Your task to perform on an android device: open a new tab in the chrome app Image 0: 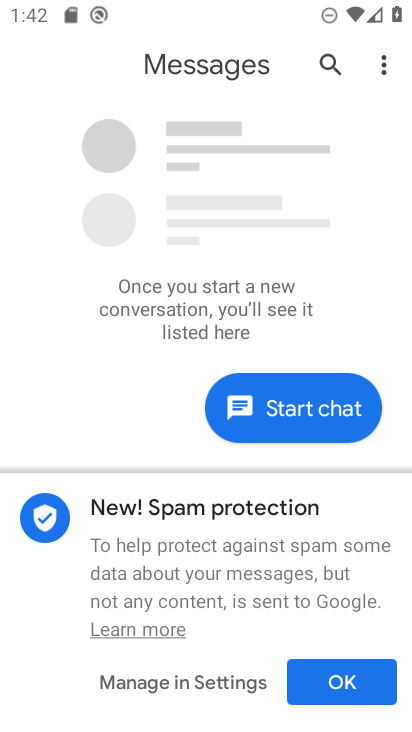
Step 0: press home button
Your task to perform on an android device: open a new tab in the chrome app Image 1: 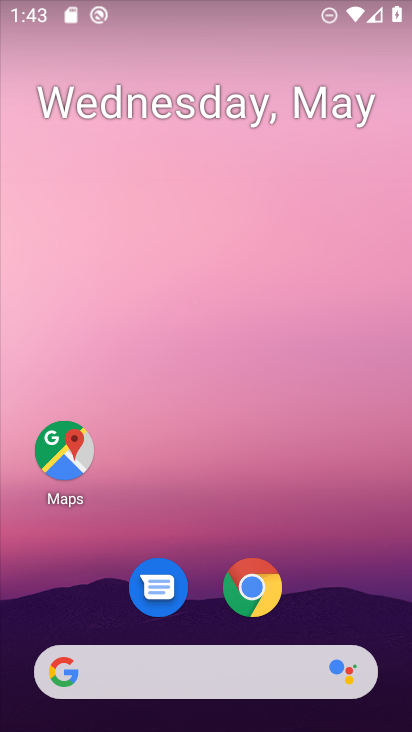
Step 1: drag from (324, 592) to (279, 266)
Your task to perform on an android device: open a new tab in the chrome app Image 2: 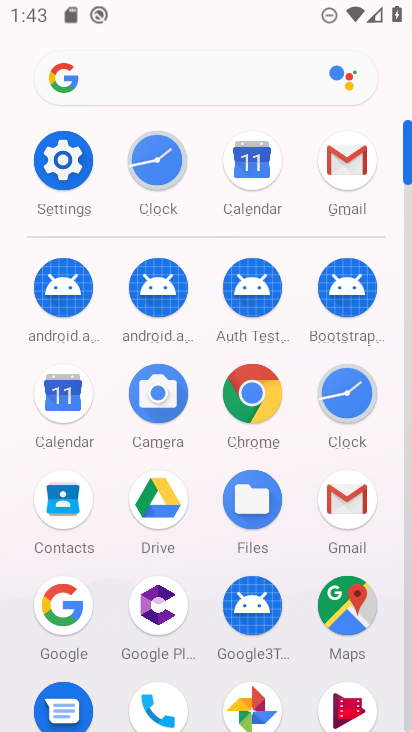
Step 2: click (257, 416)
Your task to perform on an android device: open a new tab in the chrome app Image 3: 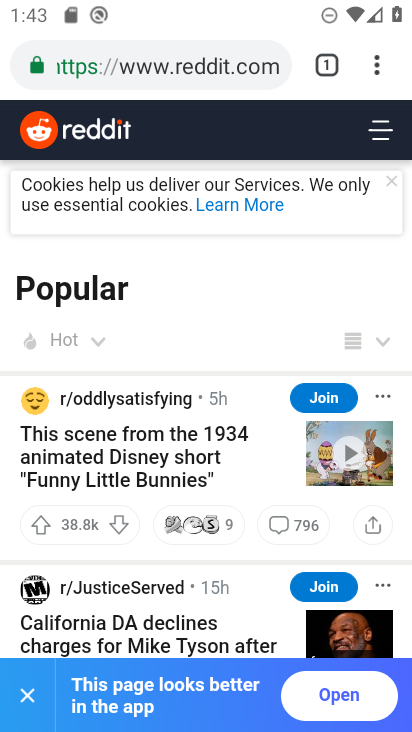
Step 3: click (370, 64)
Your task to perform on an android device: open a new tab in the chrome app Image 4: 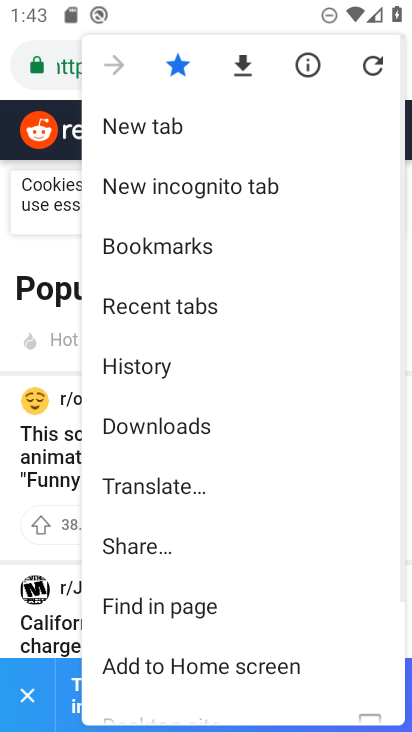
Step 4: click (140, 126)
Your task to perform on an android device: open a new tab in the chrome app Image 5: 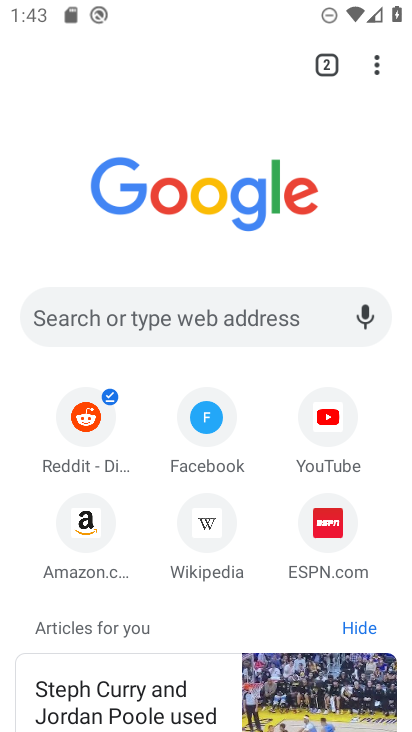
Step 5: task complete